Your task to perform on an android device: stop showing notifications on the lock screen Image 0: 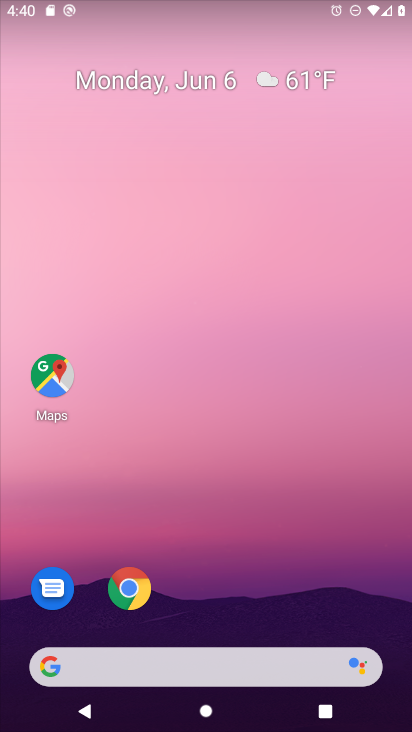
Step 0: drag from (231, 357) to (193, 158)
Your task to perform on an android device: stop showing notifications on the lock screen Image 1: 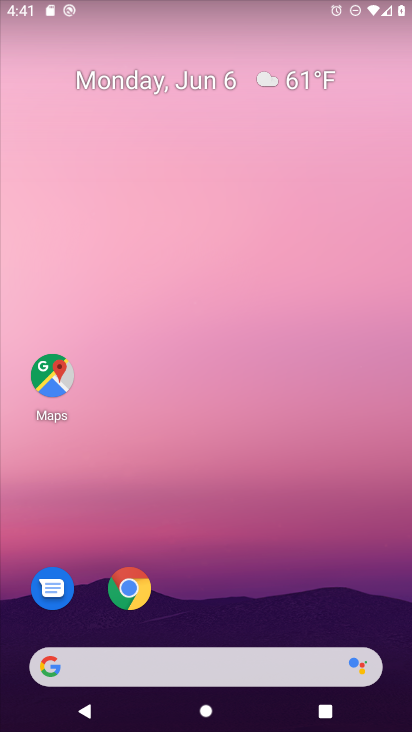
Step 1: drag from (248, 616) to (187, 207)
Your task to perform on an android device: stop showing notifications on the lock screen Image 2: 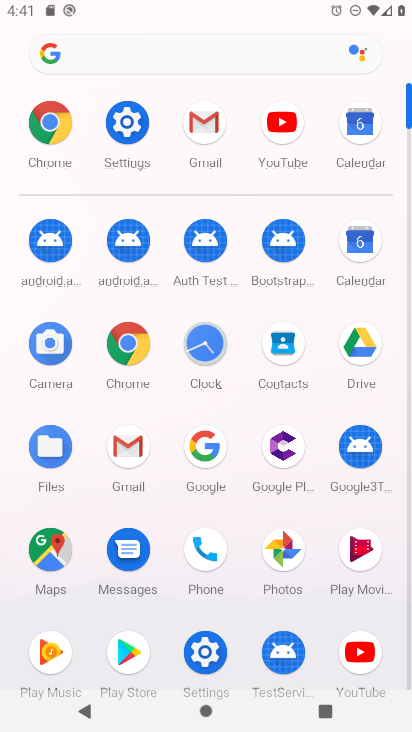
Step 2: click (128, 134)
Your task to perform on an android device: stop showing notifications on the lock screen Image 3: 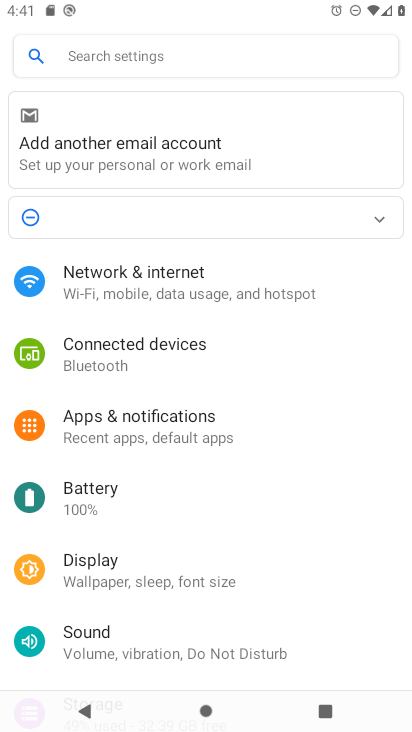
Step 3: click (151, 422)
Your task to perform on an android device: stop showing notifications on the lock screen Image 4: 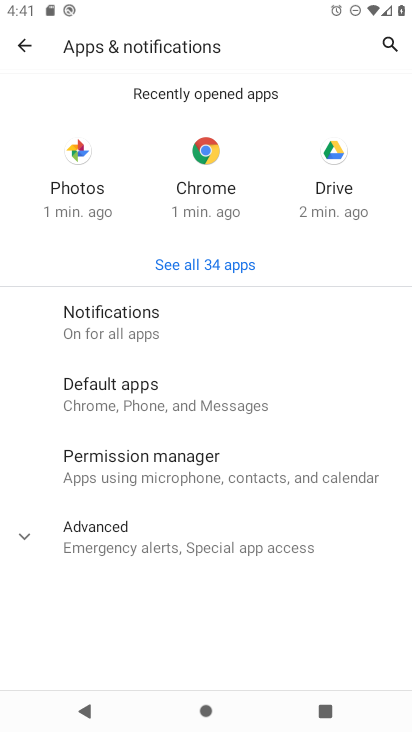
Step 4: click (165, 309)
Your task to perform on an android device: stop showing notifications on the lock screen Image 5: 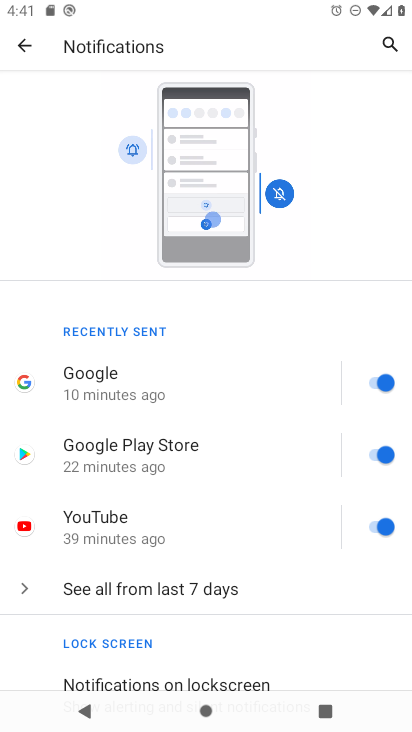
Step 5: drag from (307, 608) to (253, 337)
Your task to perform on an android device: stop showing notifications on the lock screen Image 6: 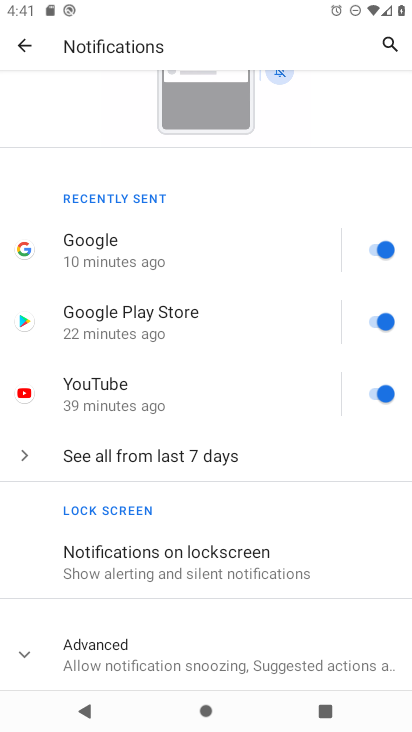
Step 6: click (281, 552)
Your task to perform on an android device: stop showing notifications on the lock screen Image 7: 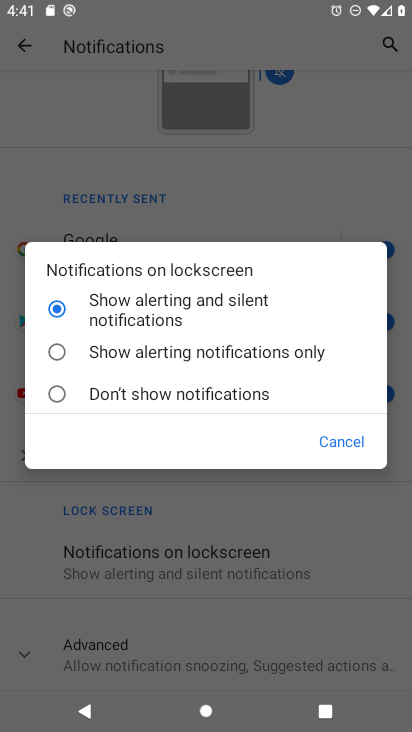
Step 7: click (207, 389)
Your task to perform on an android device: stop showing notifications on the lock screen Image 8: 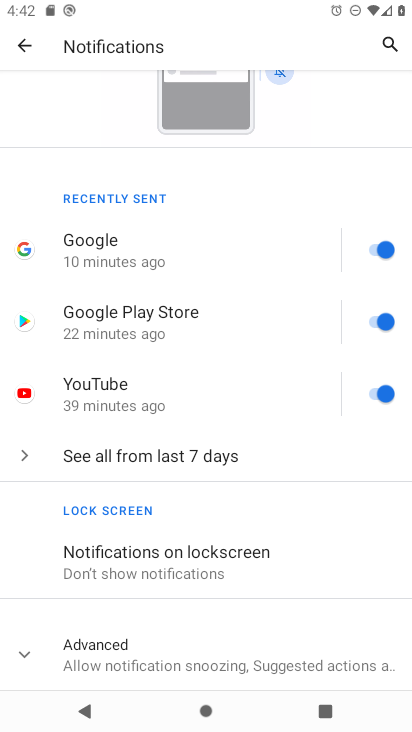
Step 8: task complete